Your task to perform on an android device: When is my next appointment? Image 0: 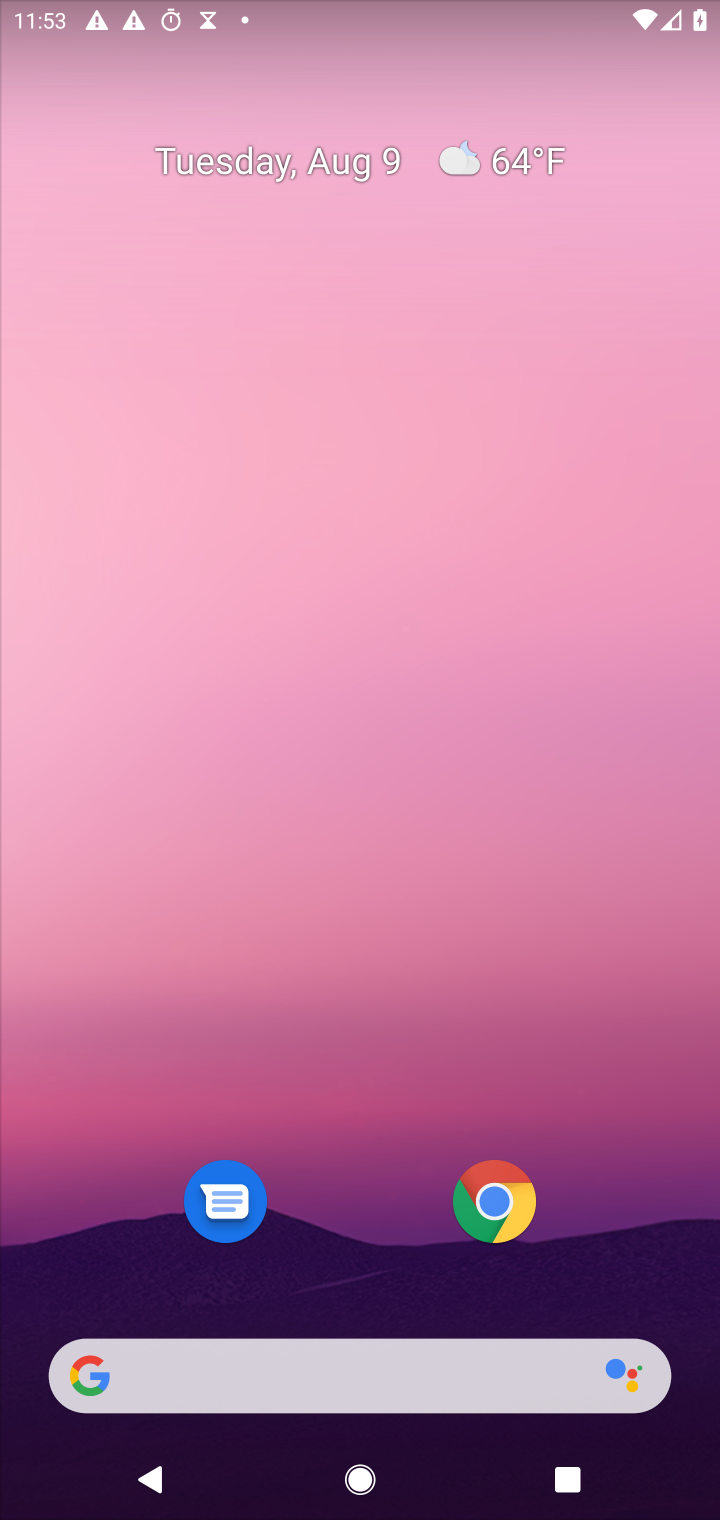
Step 0: press home button
Your task to perform on an android device: When is my next appointment? Image 1: 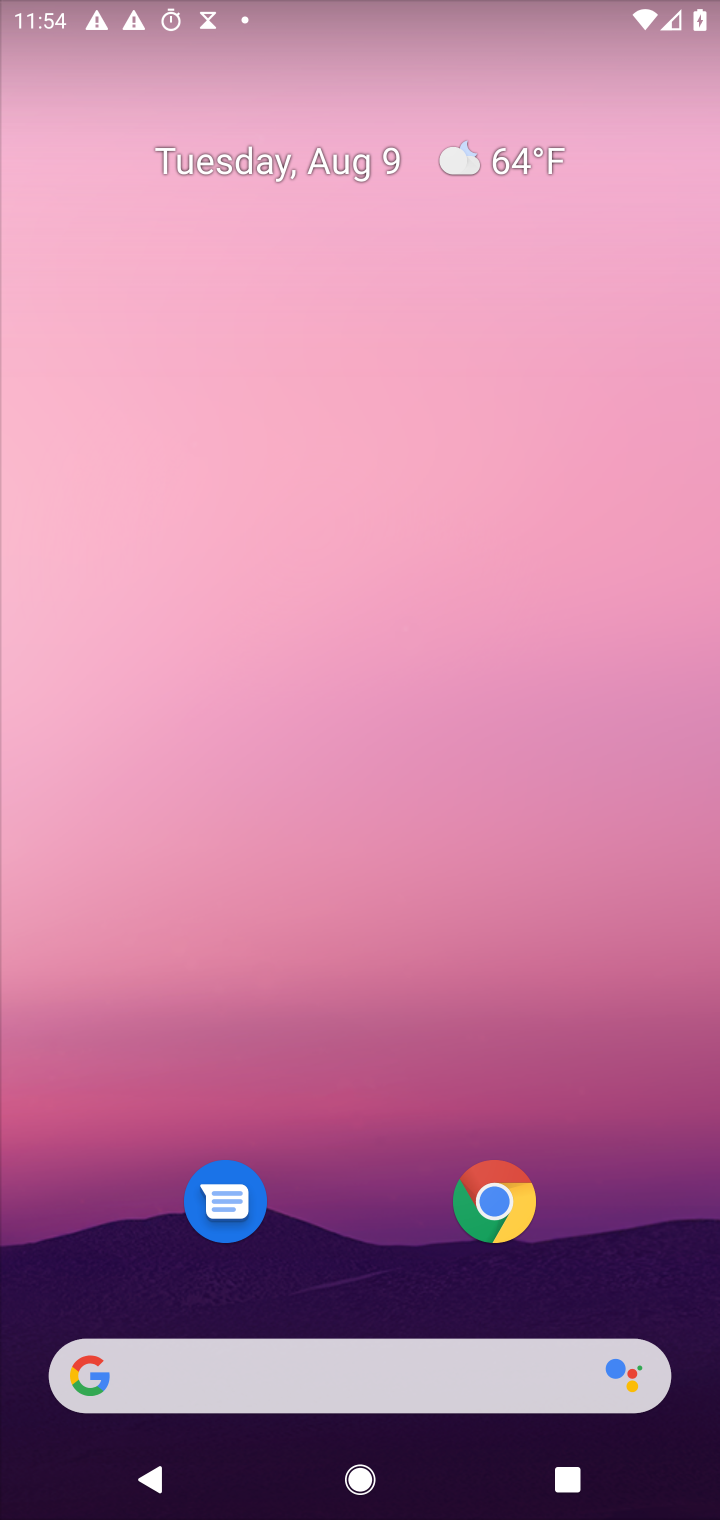
Step 1: drag from (370, 1231) to (351, 75)
Your task to perform on an android device: When is my next appointment? Image 2: 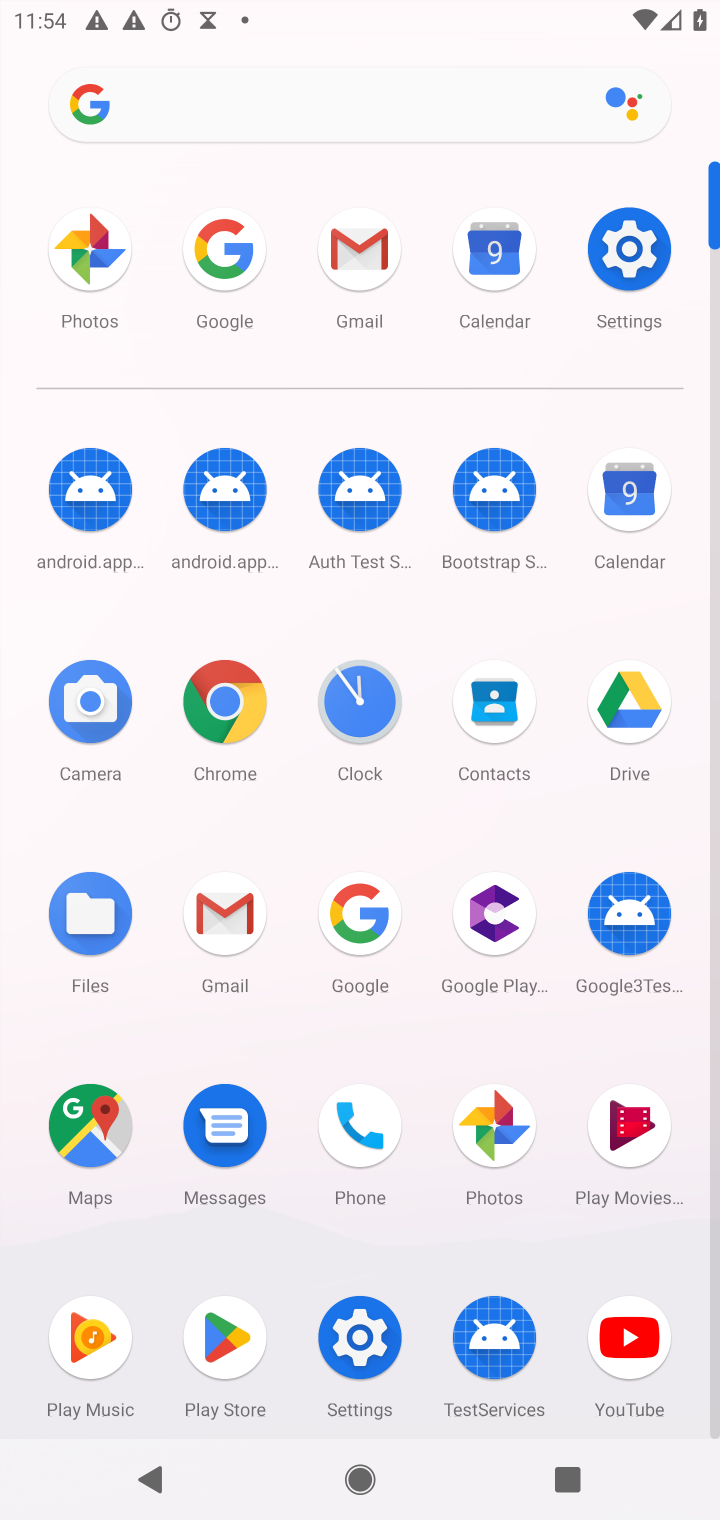
Step 2: click (626, 515)
Your task to perform on an android device: When is my next appointment? Image 3: 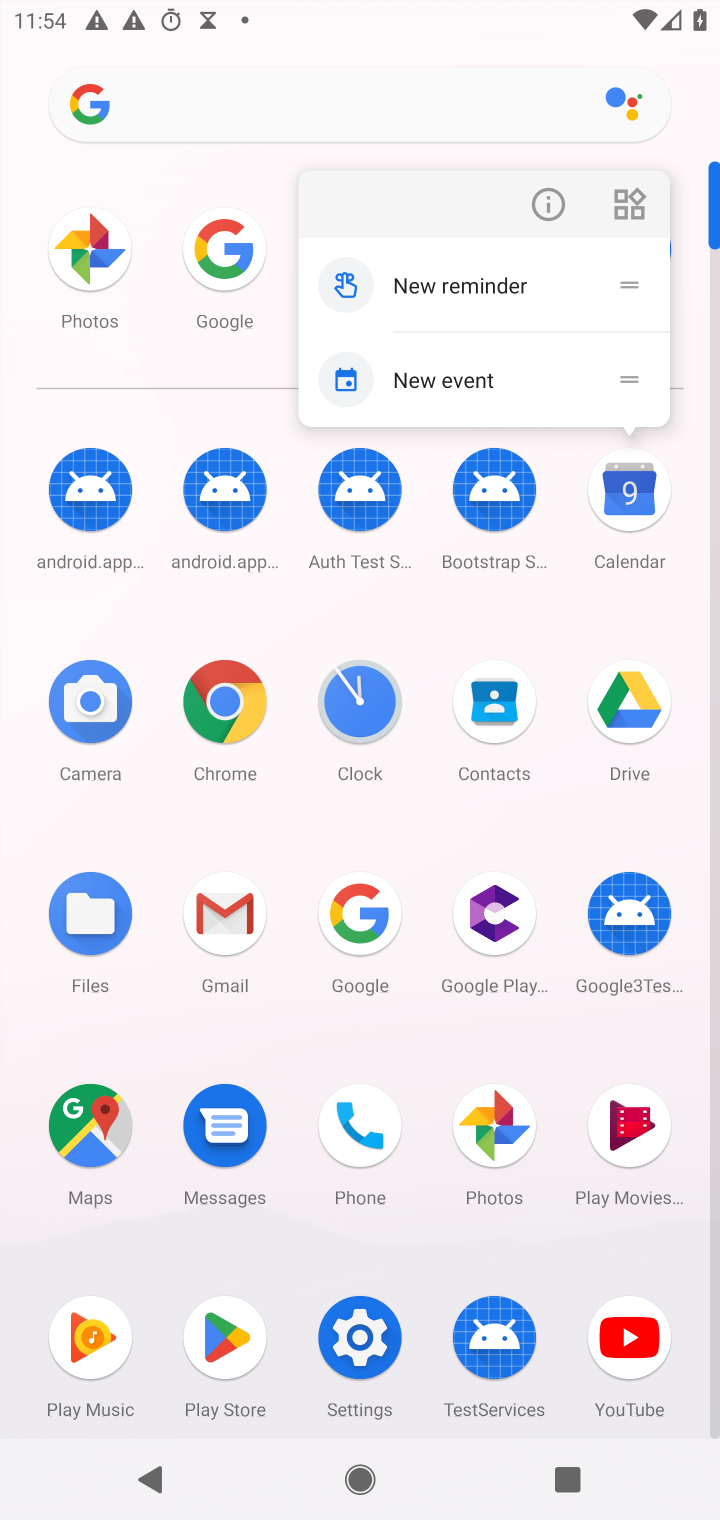
Step 3: click (608, 503)
Your task to perform on an android device: When is my next appointment? Image 4: 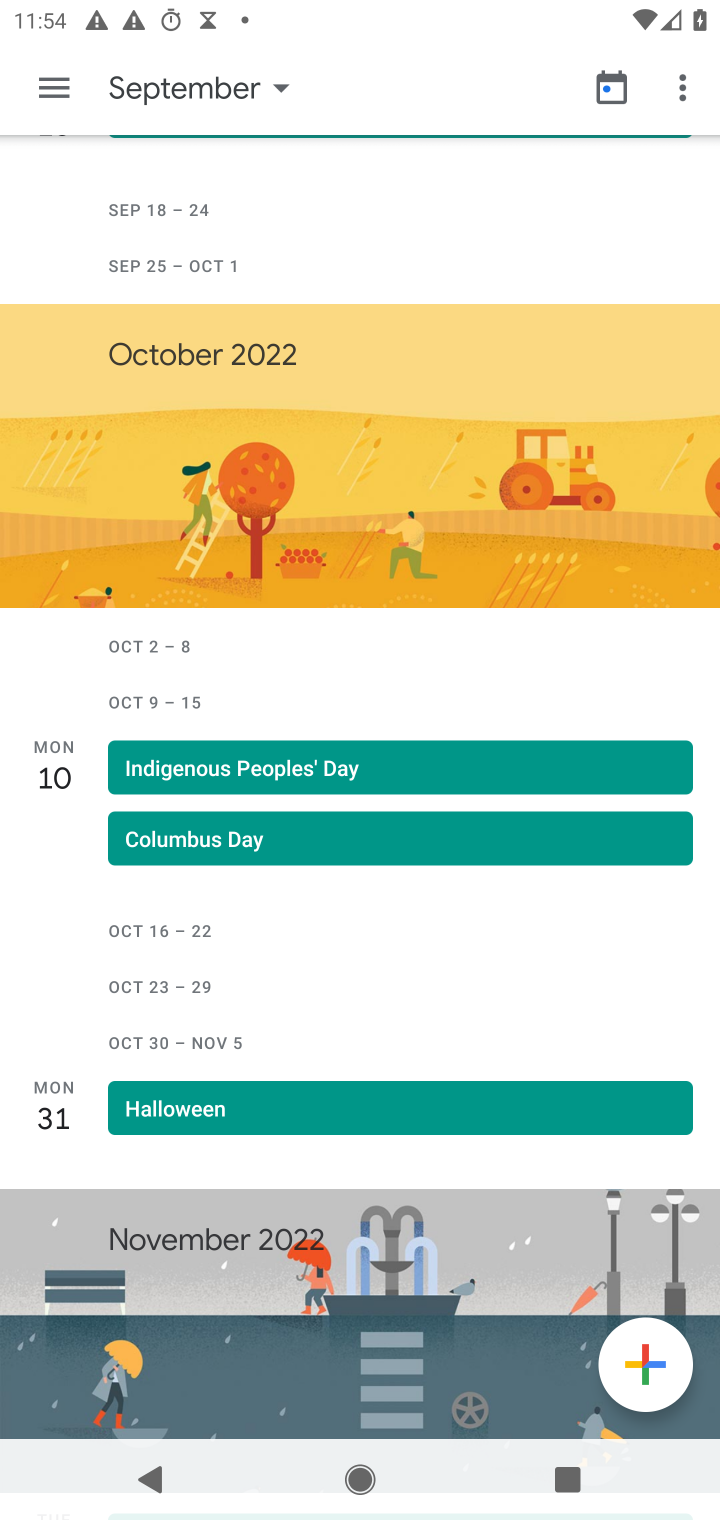
Step 4: click (43, 83)
Your task to perform on an android device: When is my next appointment? Image 5: 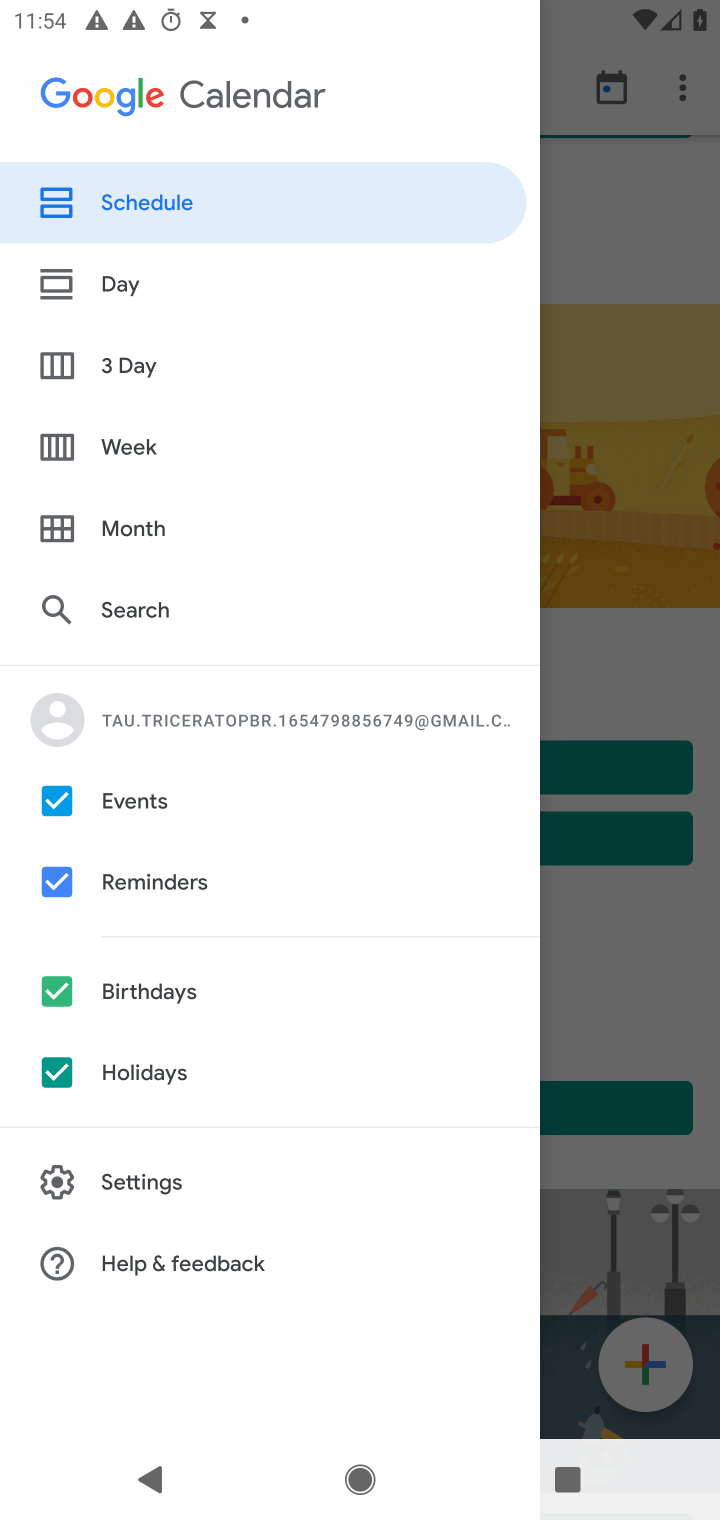
Step 5: click (180, 198)
Your task to perform on an android device: When is my next appointment? Image 6: 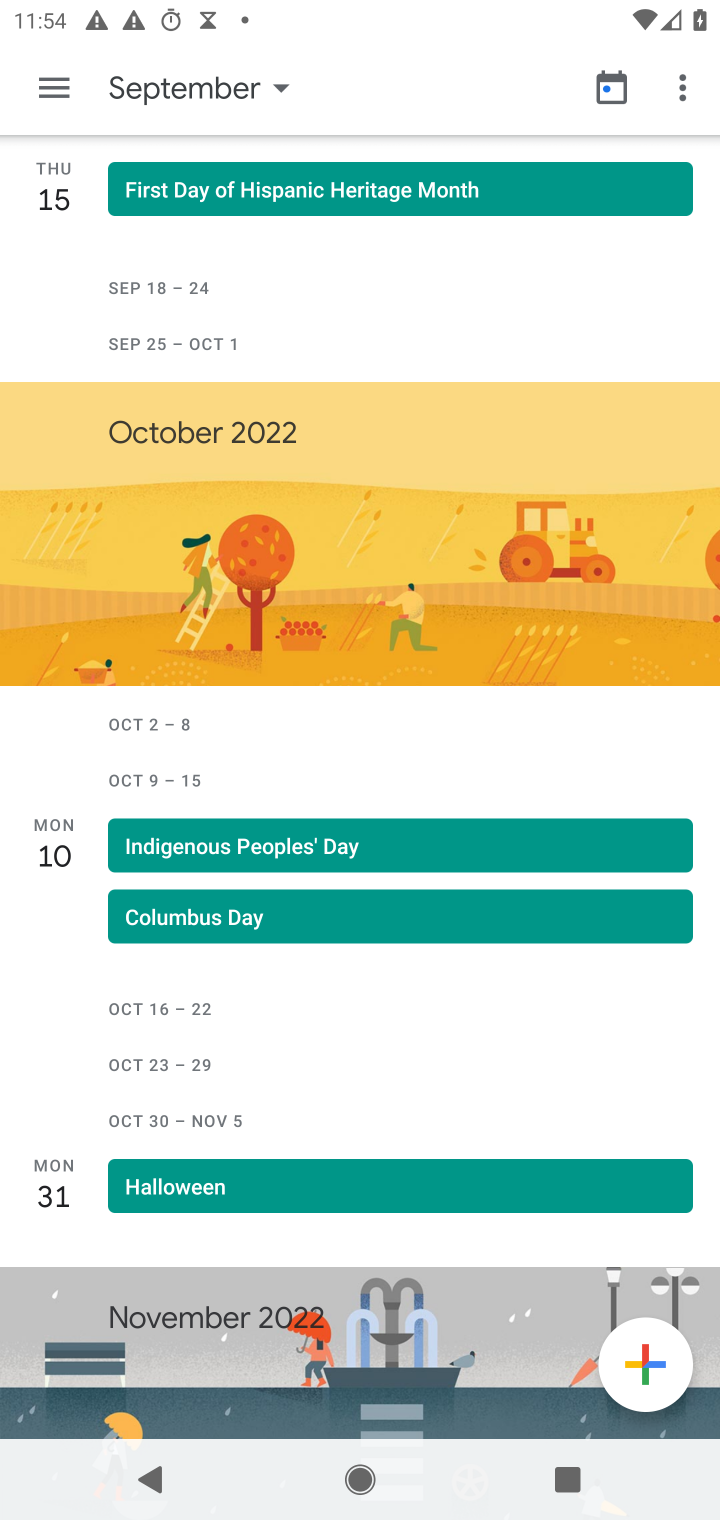
Step 6: task complete